Your task to perform on an android device: open chrome and create a bookmark for the current page Image 0: 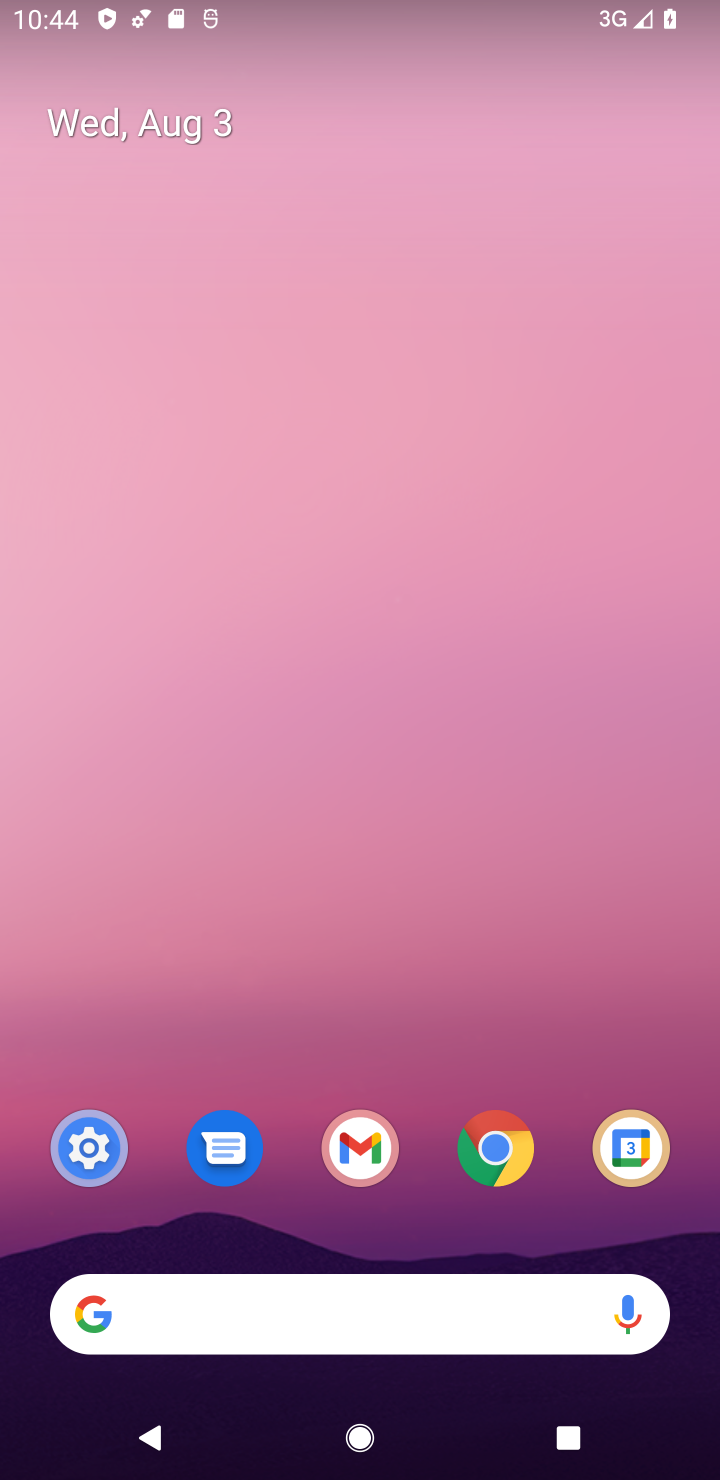
Step 0: drag from (361, 948) to (336, 428)
Your task to perform on an android device: open chrome and create a bookmark for the current page Image 1: 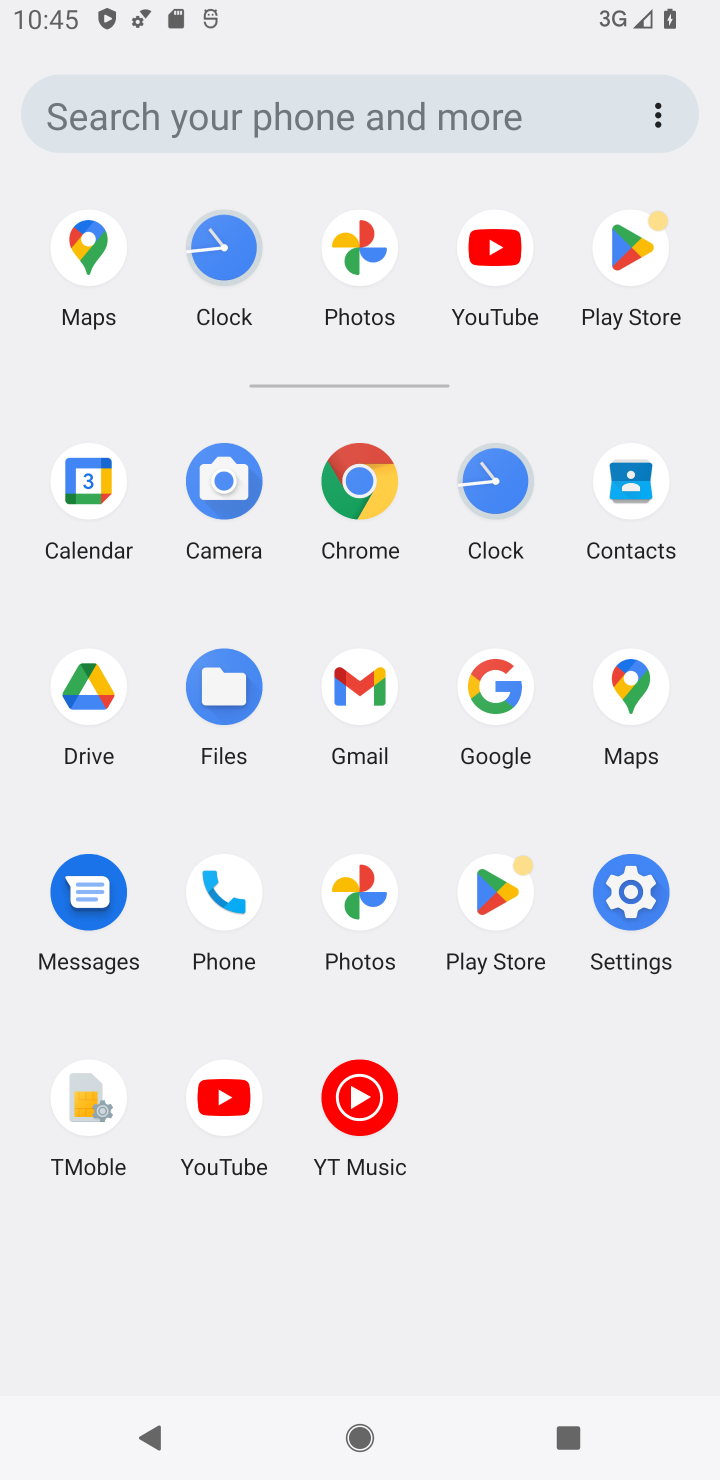
Step 1: click (355, 470)
Your task to perform on an android device: open chrome and create a bookmark for the current page Image 2: 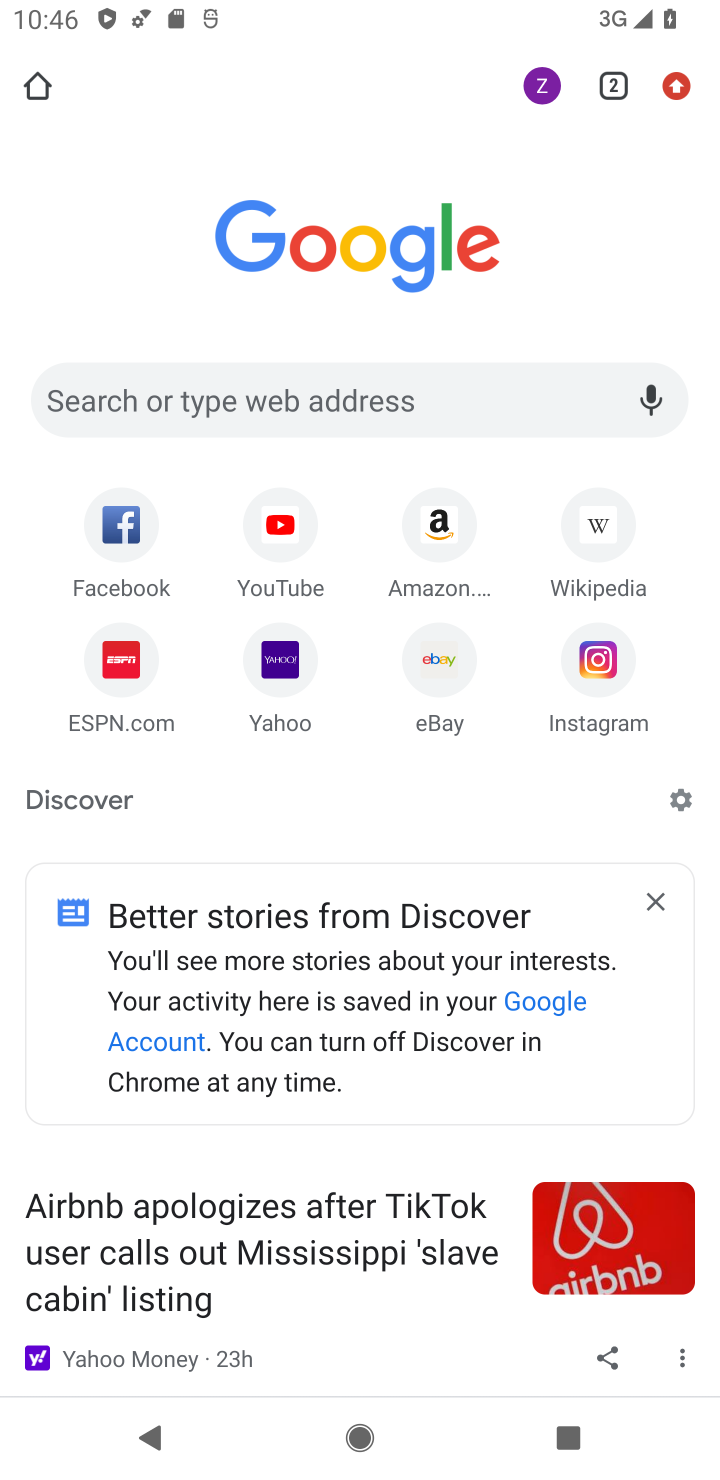
Step 2: click (670, 83)
Your task to perform on an android device: open chrome and create a bookmark for the current page Image 3: 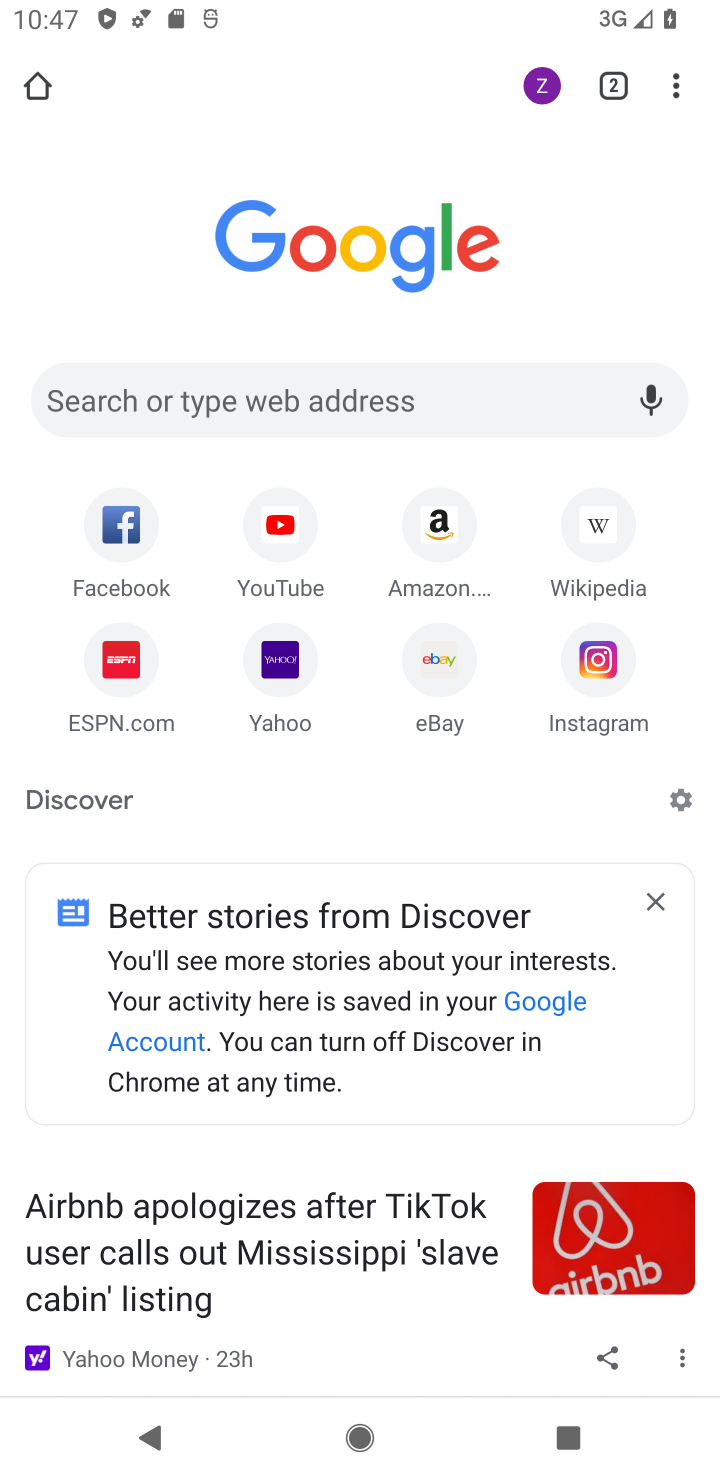
Step 3: click (674, 87)
Your task to perform on an android device: open chrome and create a bookmark for the current page Image 4: 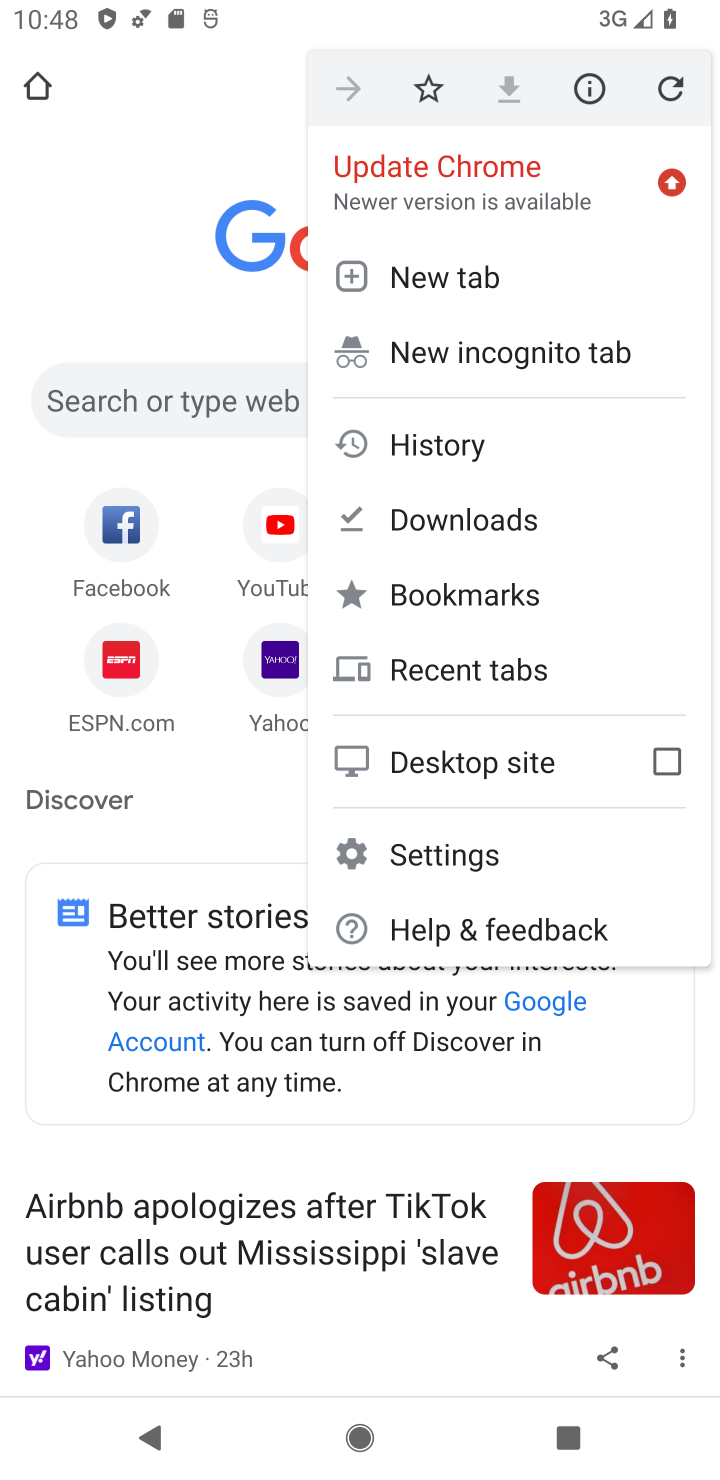
Step 4: click (477, 596)
Your task to perform on an android device: open chrome and create a bookmark for the current page Image 5: 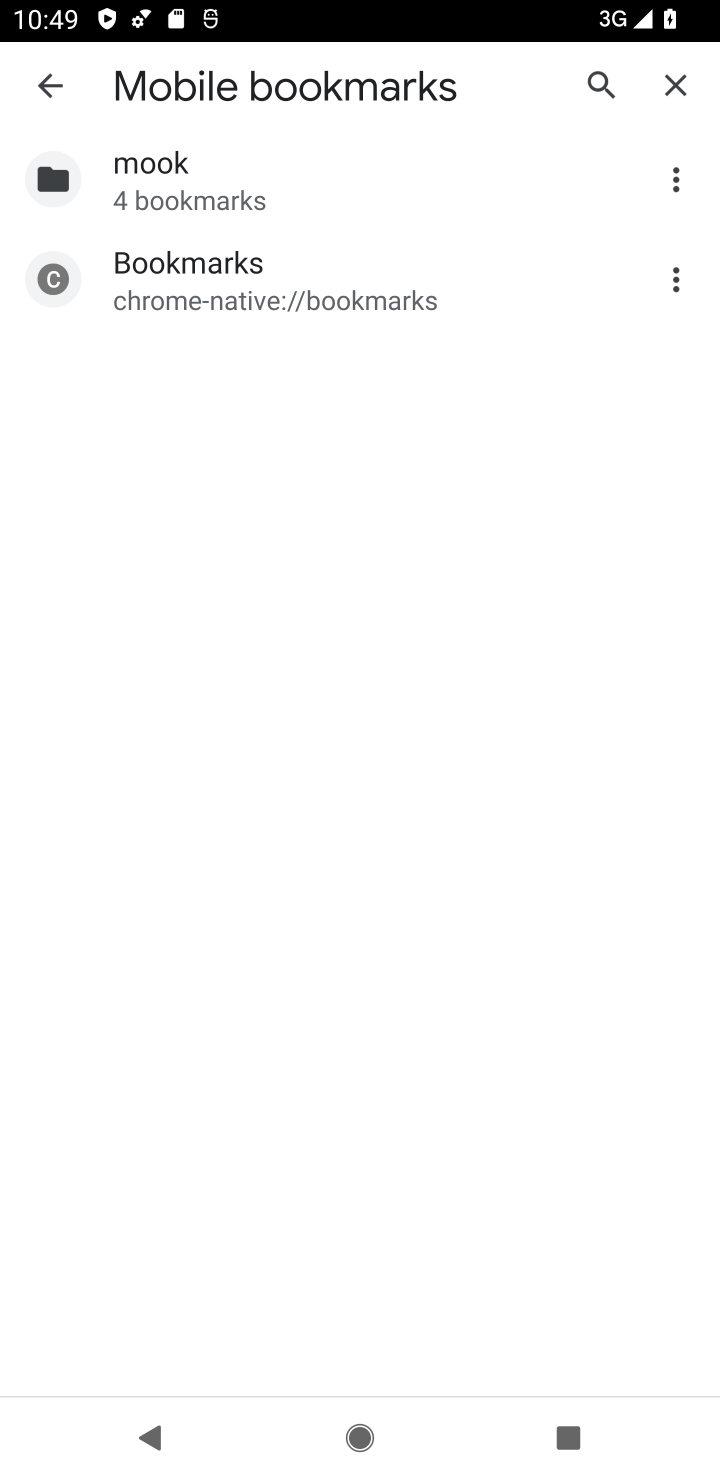
Step 5: task complete